Your task to perform on an android device: Go to Android settings Image 0: 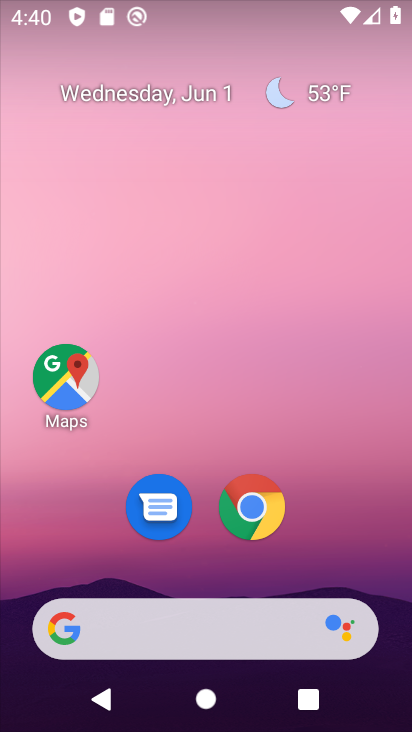
Step 0: drag from (354, 554) to (352, 34)
Your task to perform on an android device: Go to Android settings Image 1: 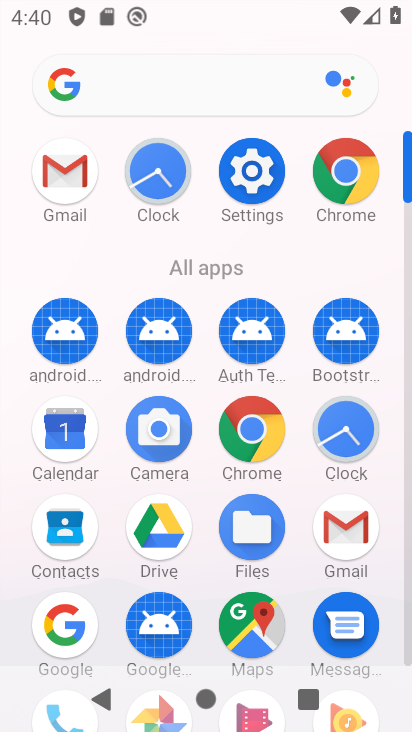
Step 1: click (256, 169)
Your task to perform on an android device: Go to Android settings Image 2: 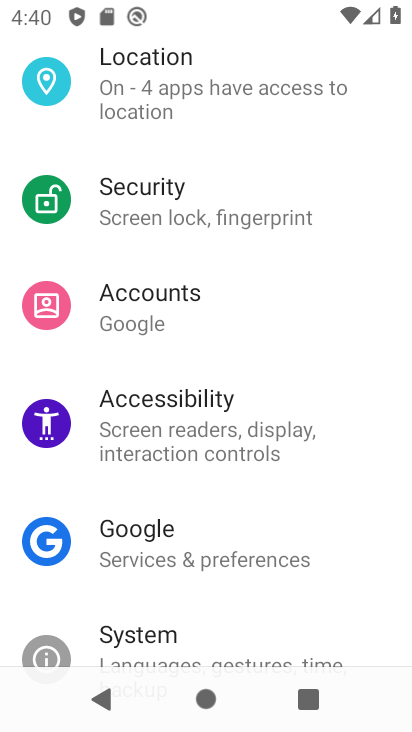
Step 2: task complete